Your task to perform on an android device: Search for vegetarian restaurants on Maps Image 0: 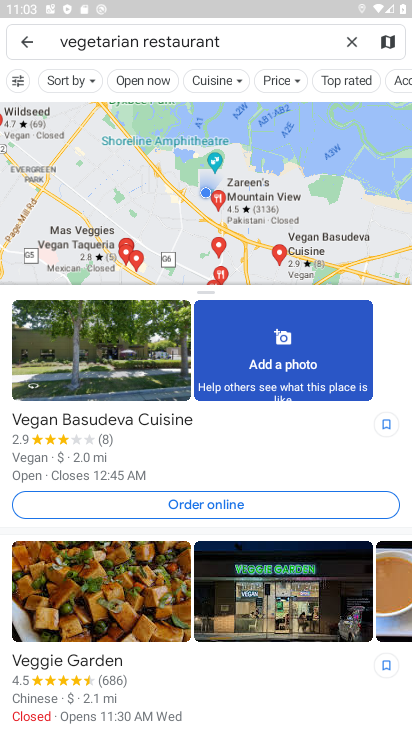
Step 0: click (353, 42)
Your task to perform on an android device: Search for vegetarian restaurants on Maps Image 1: 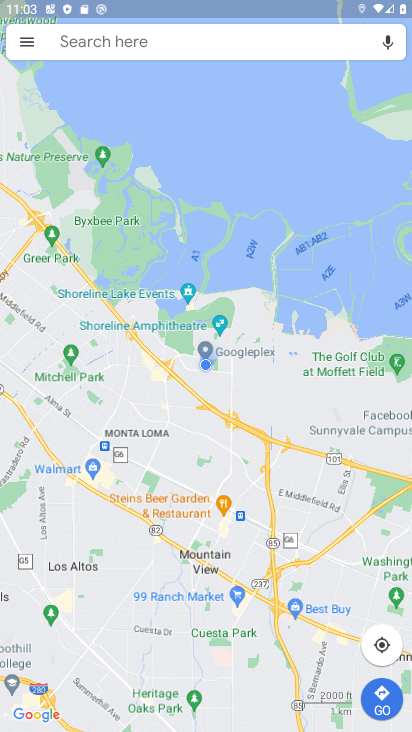
Step 1: click (109, 33)
Your task to perform on an android device: Search for vegetarian restaurants on Maps Image 2: 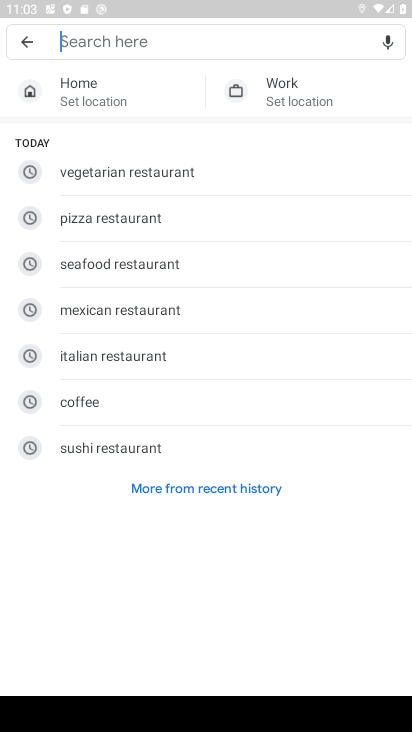
Step 2: click (142, 171)
Your task to perform on an android device: Search for vegetarian restaurants on Maps Image 3: 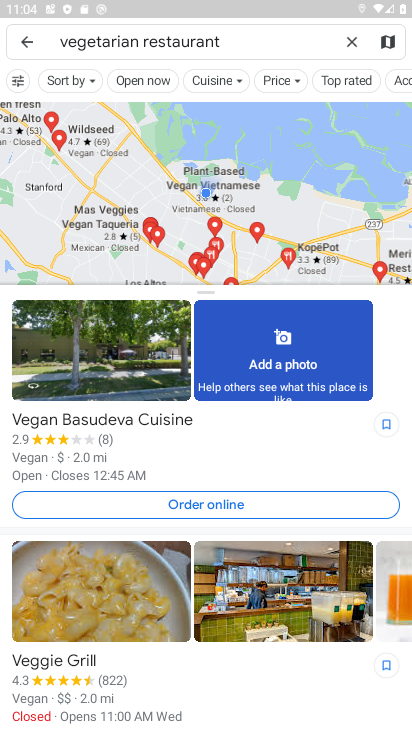
Step 3: task complete